Your task to perform on an android device: What's on my calendar today? Image 0: 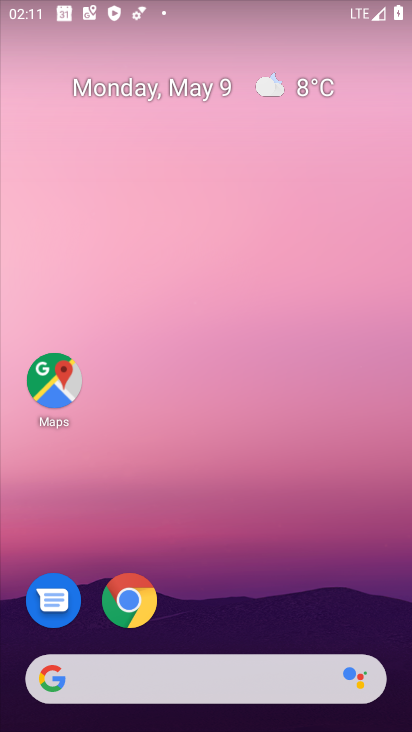
Step 0: press home button
Your task to perform on an android device: What's on my calendar today? Image 1: 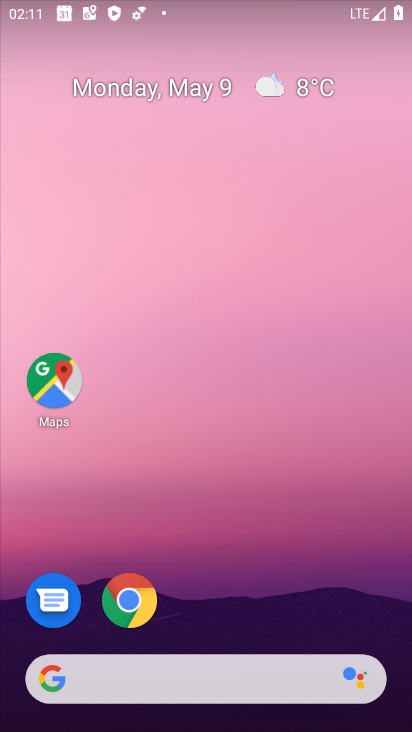
Step 1: drag from (210, 630) to (187, 147)
Your task to perform on an android device: What's on my calendar today? Image 2: 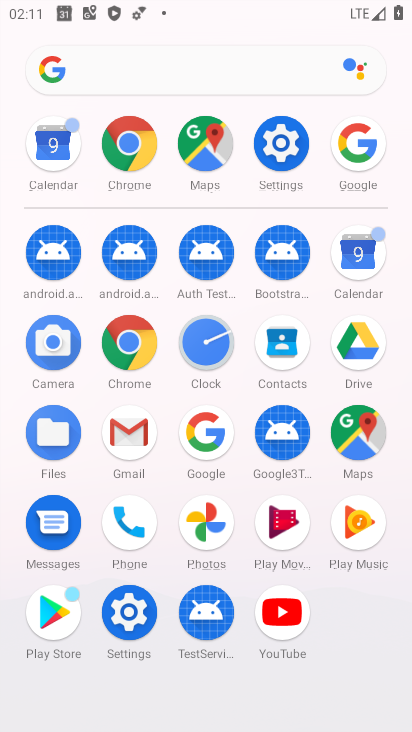
Step 2: click (356, 253)
Your task to perform on an android device: What's on my calendar today? Image 3: 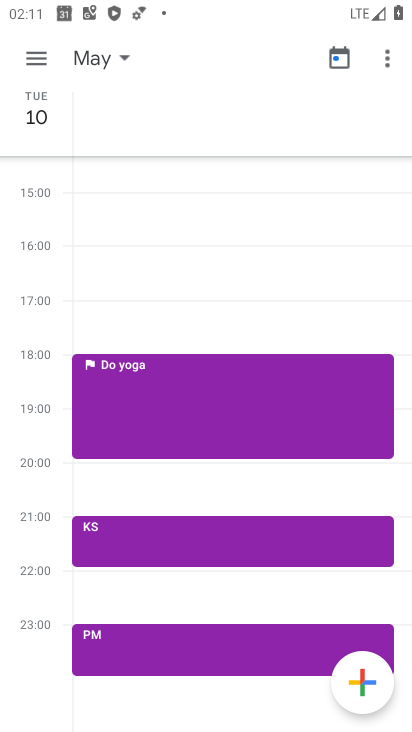
Step 3: click (35, 53)
Your task to perform on an android device: What's on my calendar today? Image 4: 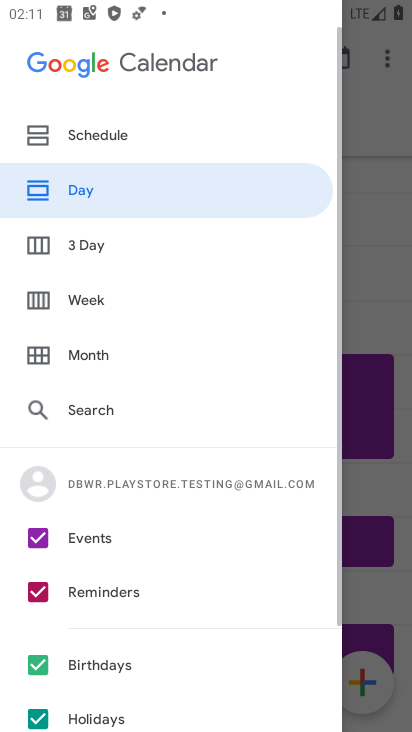
Step 4: click (97, 178)
Your task to perform on an android device: What's on my calendar today? Image 5: 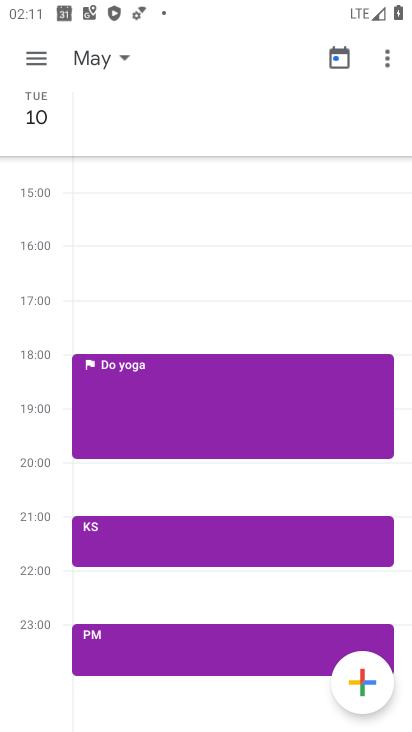
Step 5: click (46, 123)
Your task to perform on an android device: What's on my calendar today? Image 6: 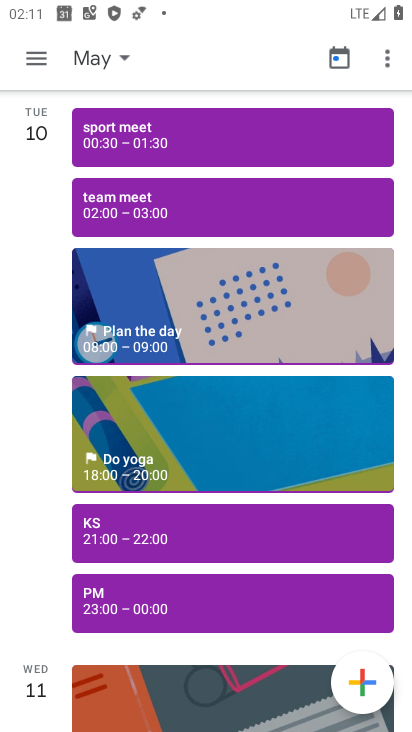
Step 6: drag from (46, 153) to (37, 539)
Your task to perform on an android device: What's on my calendar today? Image 7: 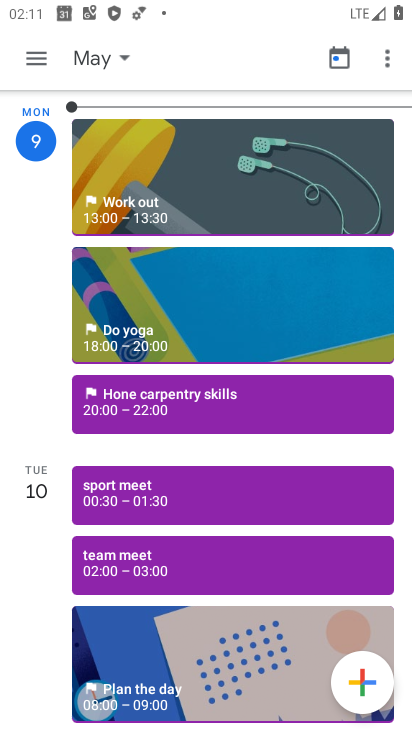
Step 7: click (43, 158)
Your task to perform on an android device: What's on my calendar today? Image 8: 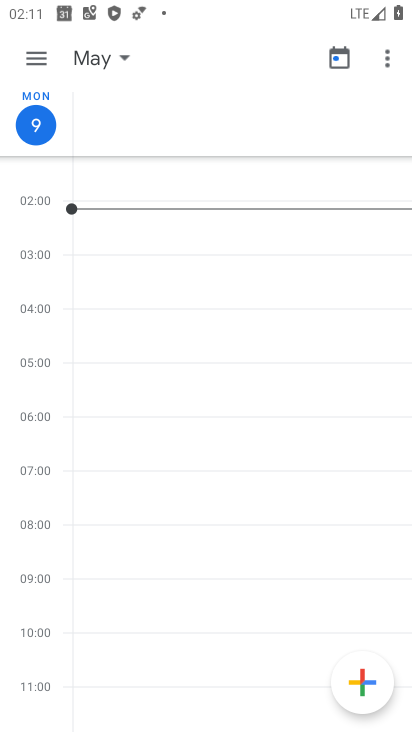
Step 8: task complete